Your task to perform on an android device: Turn off the flashlight Image 0: 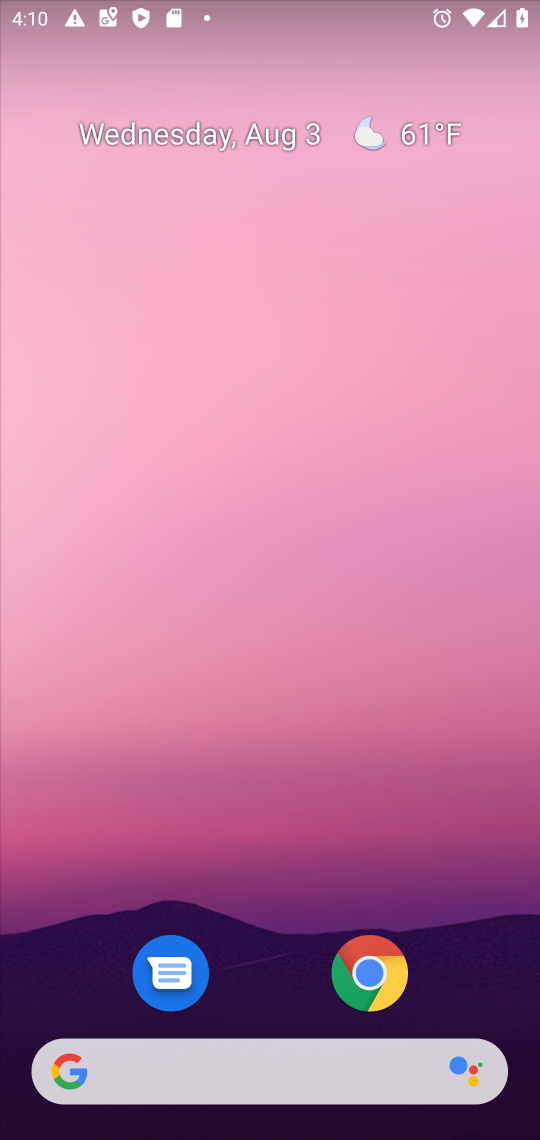
Step 0: drag from (300, 815) to (368, 53)
Your task to perform on an android device: Turn off the flashlight Image 1: 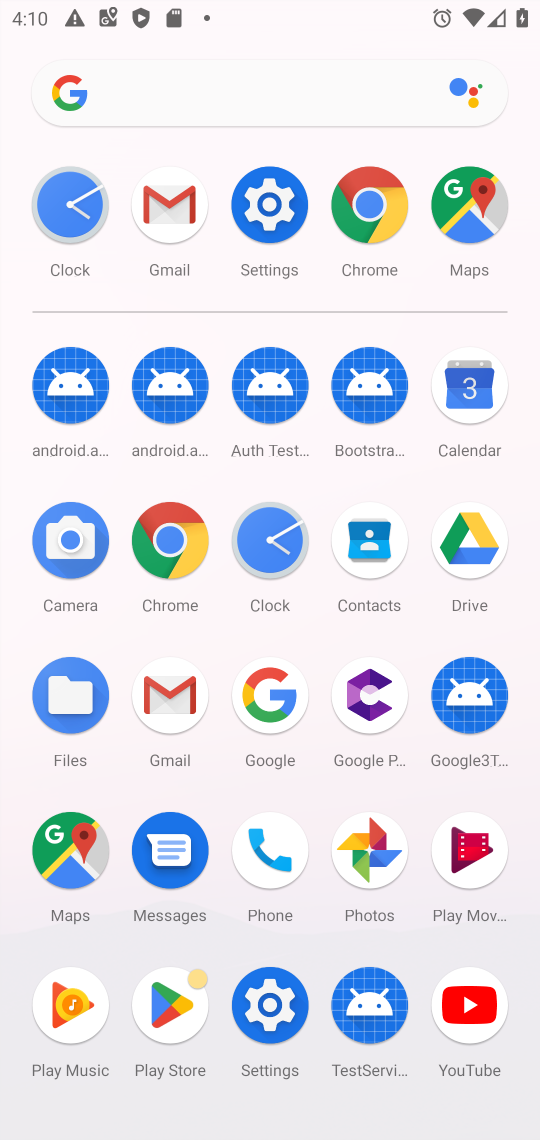
Step 1: click (276, 207)
Your task to perform on an android device: Turn off the flashlight Image 2: 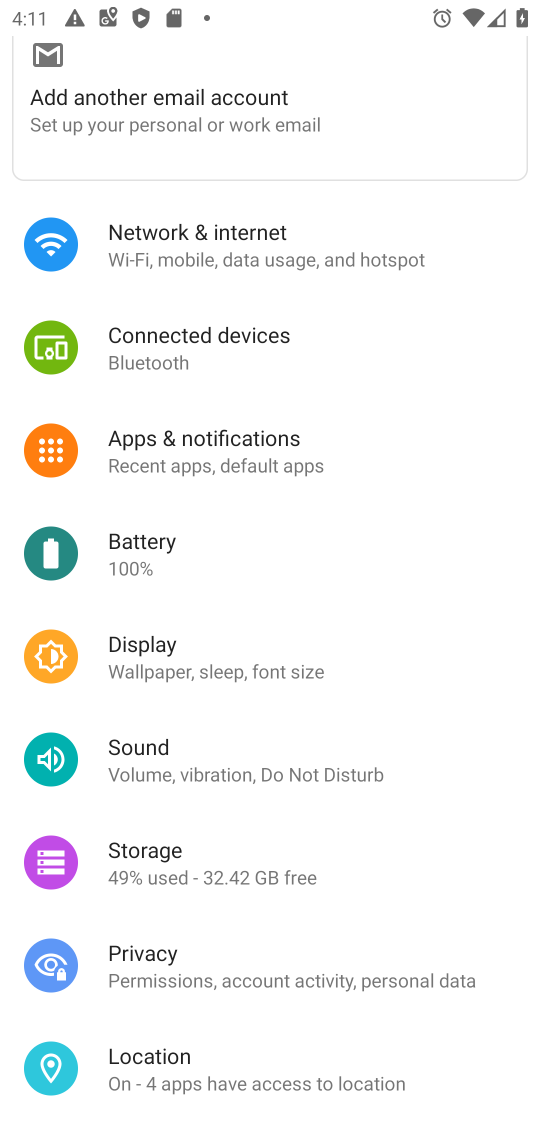
Step 2: drag from (287, 457) to (372, 779)
Your task to perform on an android device: Turn off the flashlight Image 3: 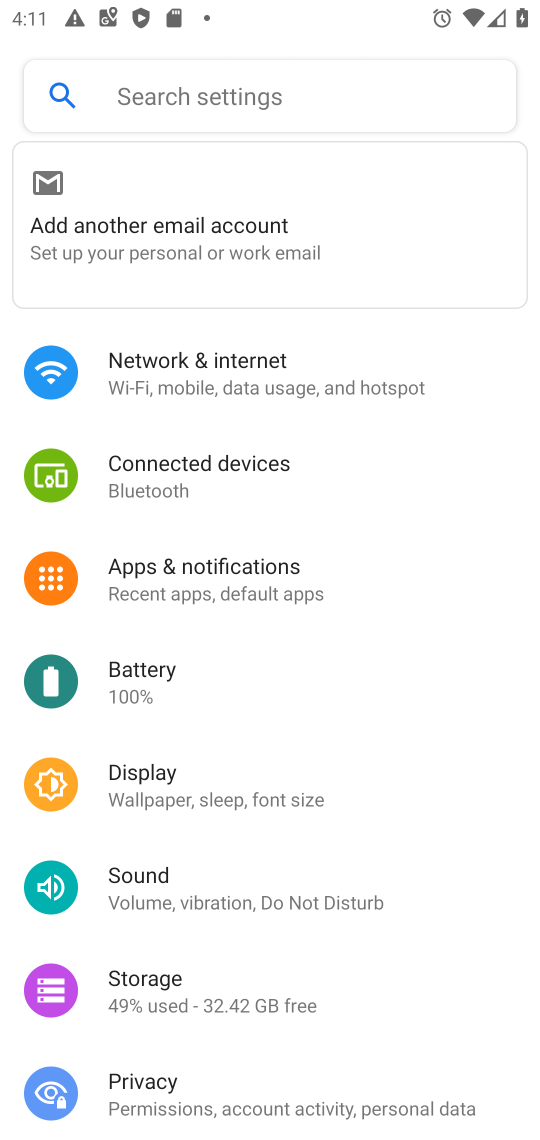
Step 3: click (347, 89)
Your task to perform on an android device: Turn off the flashlight Image 4: 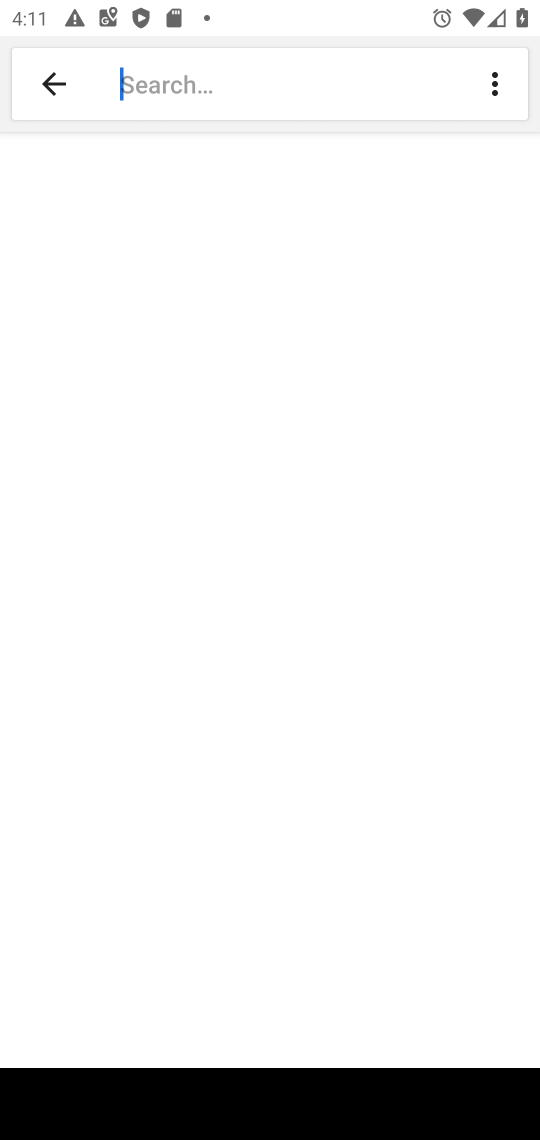
Step 4: type "Flashlight"
Your task to perform on an android device: Turn off the flashlight Image 5: 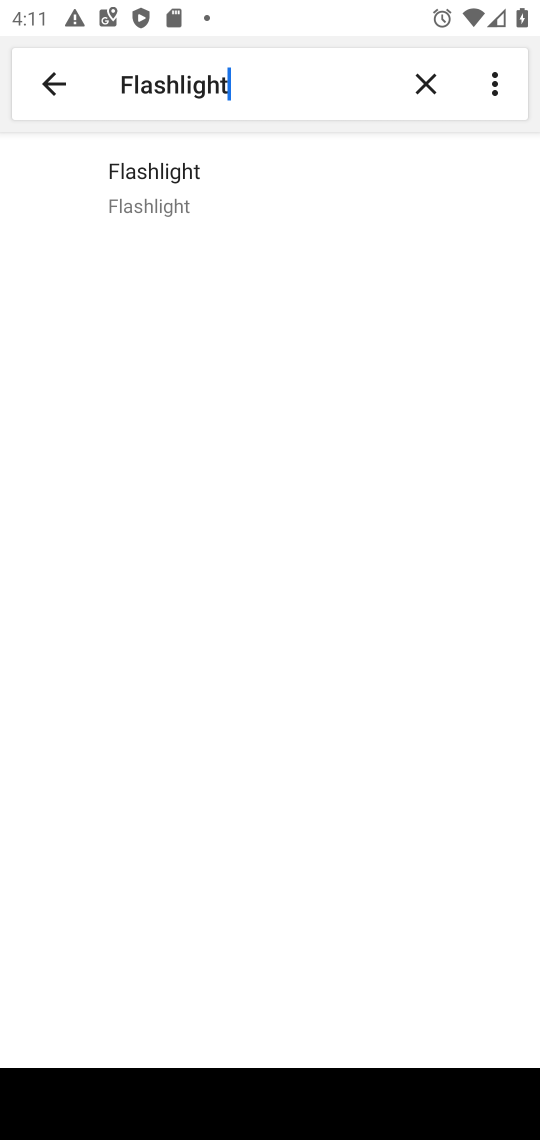
Step 5: click (158, 177)
Your task to perform on an android device: Turn off the flashlight Image 6: 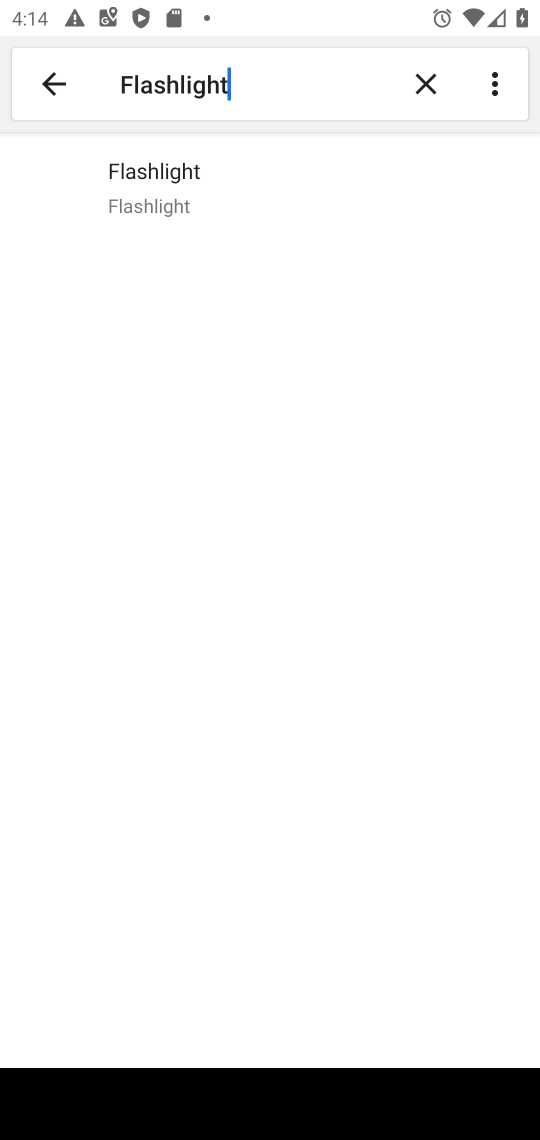
Step 6: task complete